Your task to perform on an android device: check battery use Image 0: 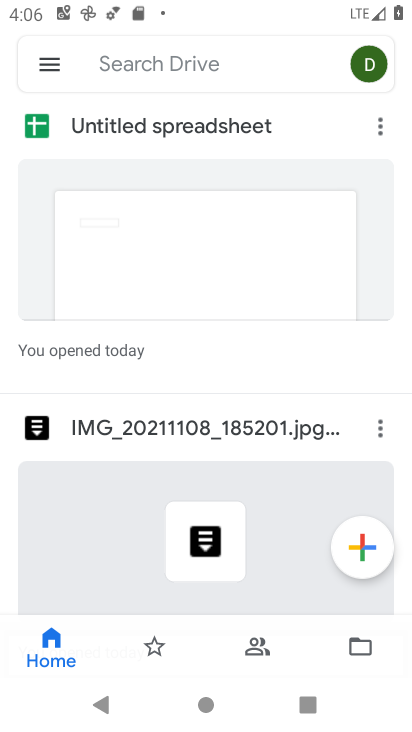
Step 0: press home button
Your task to perform on an android device: check battery use Image 1: 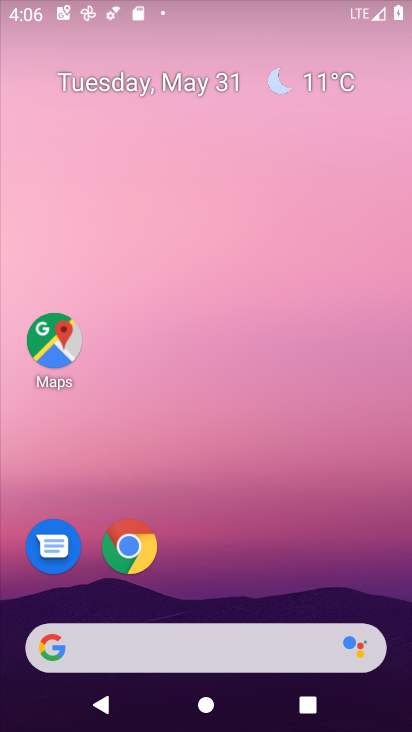
Step 1: drag from (252, 272) to (184, 85)
Your task to perform on an android device: check battery use Image 2: 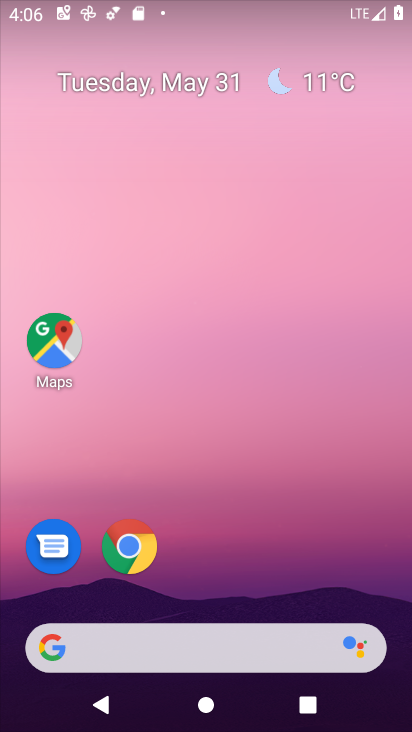
Step 2: drag from (267, 550) to (196, 23)
Your task to perform on an android device: check battery use Image 3: 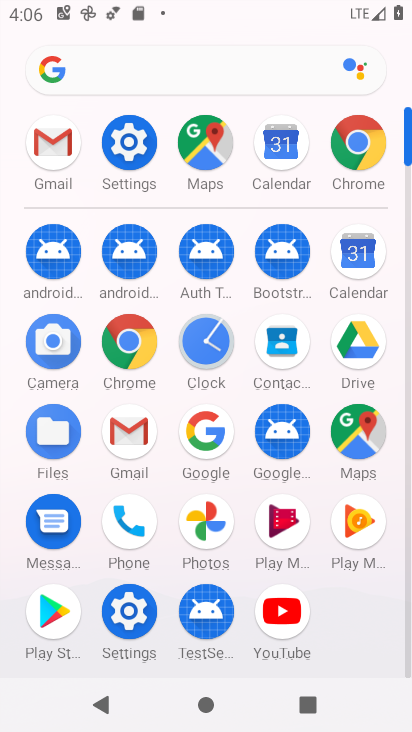
Step 3: click (118, 153)
Your task to perform on an android device: check battery use Image 4: 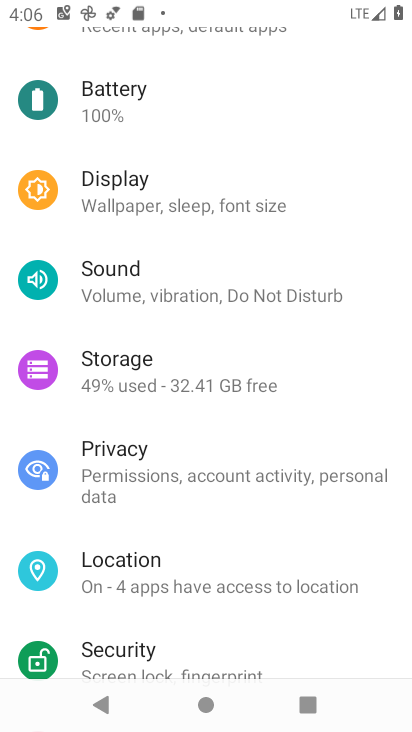
Step 4: click (149, 82)
Your task to perform on an android device: check battery use Image 5: 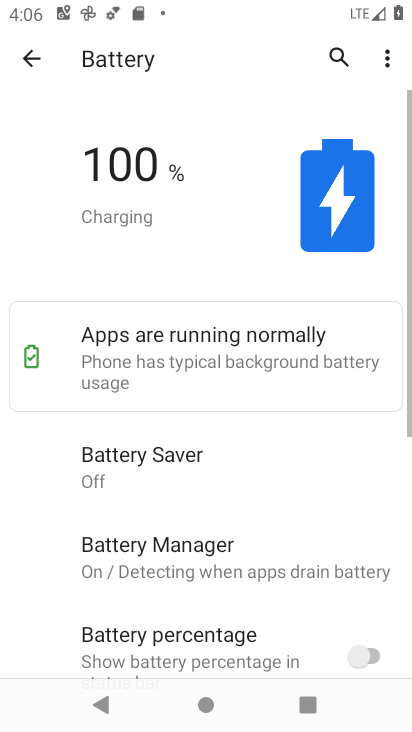
Step 5: click (386, 47)
Your task to perform on an android device: check battery use Image 6: 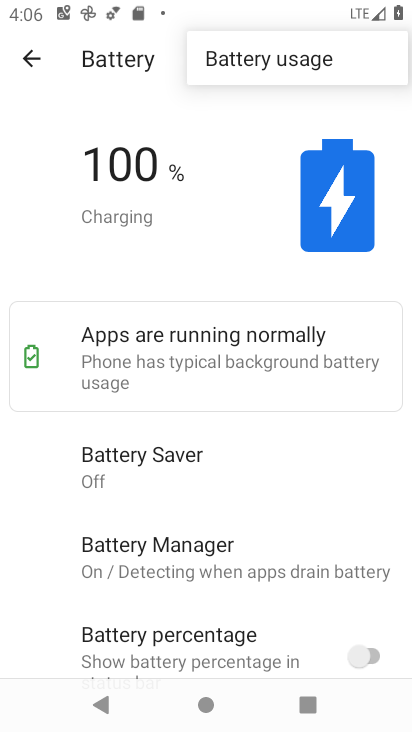
Step 6: click (299, 56)
Your task to perform on an android device: check battery use Image 7: 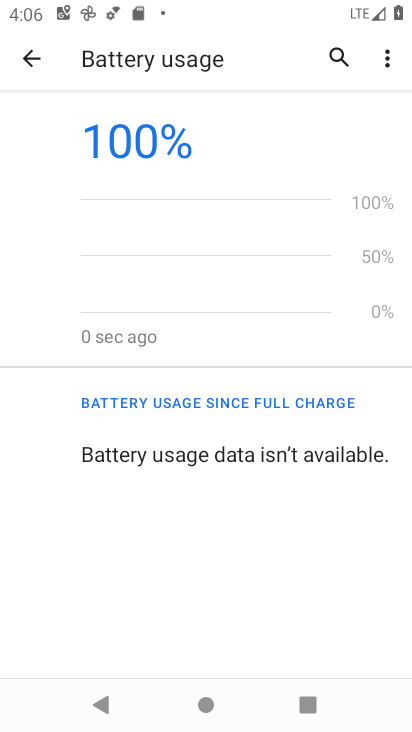
Step 7: task complete